Your task to perform on an android device: find snoozed emails in the gmail app Image 0: 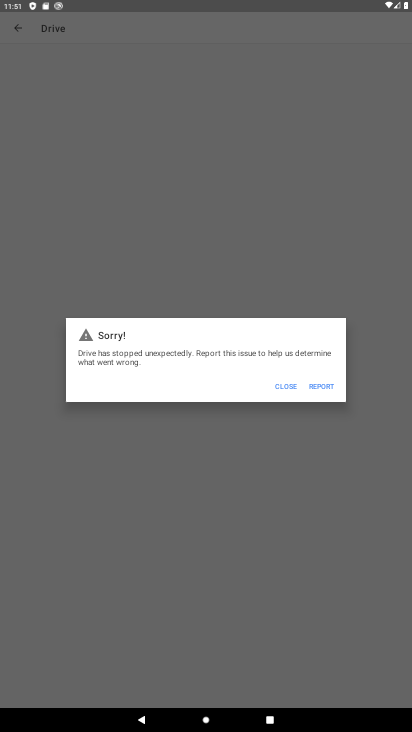
Step 0: press home button
Your task to perform on an android device: find snoozed emails in the gmail app Image 1: 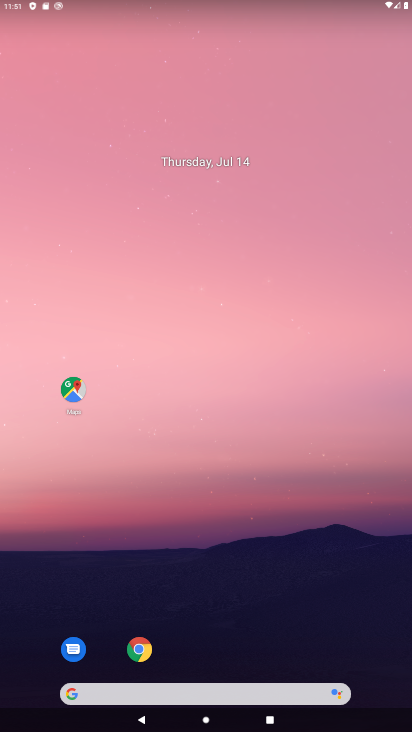
Step 1: drag from (217, 642) to (224, 126)
Your task to perform on an android device: find snoozed emails in the gmail app Image 2: 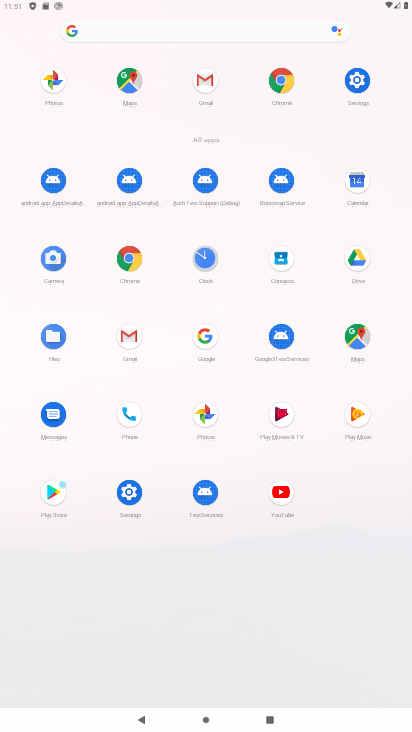
Step 2: click (128, 334)
Your task to perform on an android device: find snoozed emails in the gmail app Image 3: 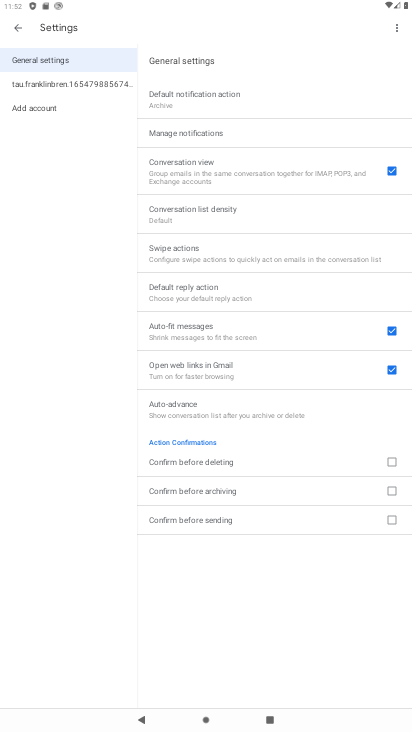
Step 3: click (16, 21)
Your task to perform on an android device: find snoozed emails in the gmail app Image 4: 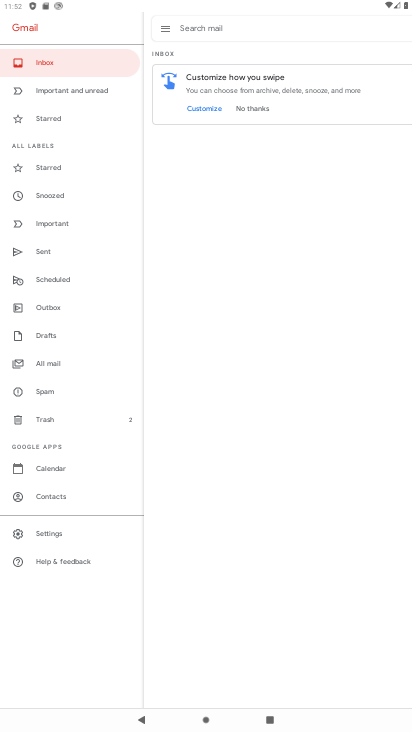
Step 4: click (52, 188)
Your task to perform on an android device: find snoozed emails in the gmail app Image 5: 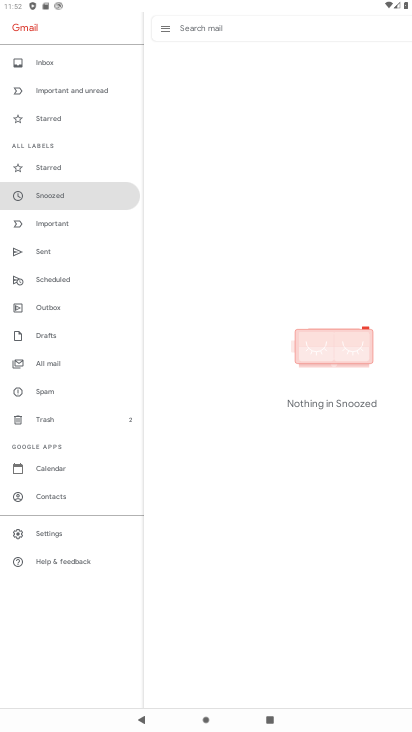
Step 5: task complete